Your task to perform on an android device: Open location settings Image 0: 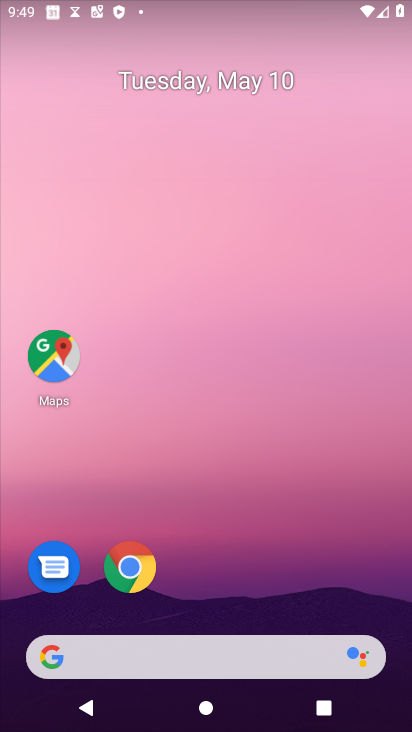
Step 0: press home button
Your task to perform on an android device: Open location settings Image 1: 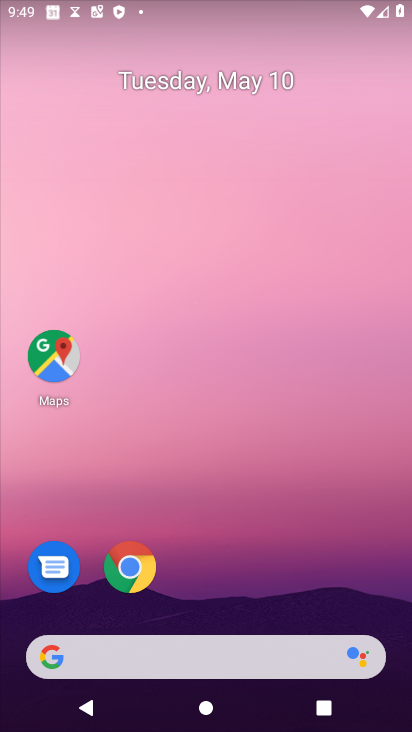
Step 1: drag from (25, 594) to (212, 147)
Your task to perform on an android device: Open location settings Image 2: 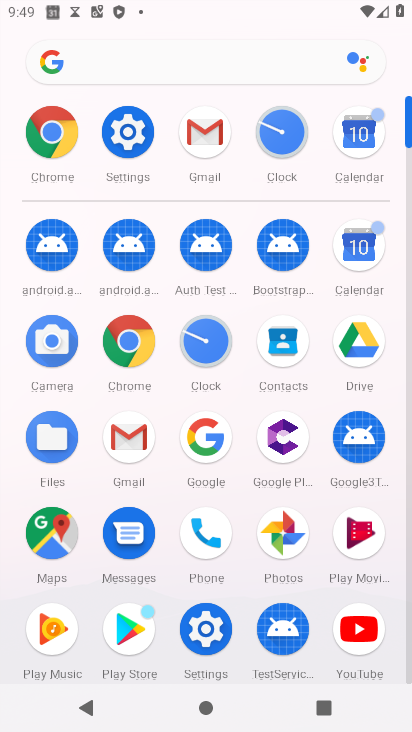
Step 2: click (133, 135)
Your task to perform on an android device: Open location settings Image 3: 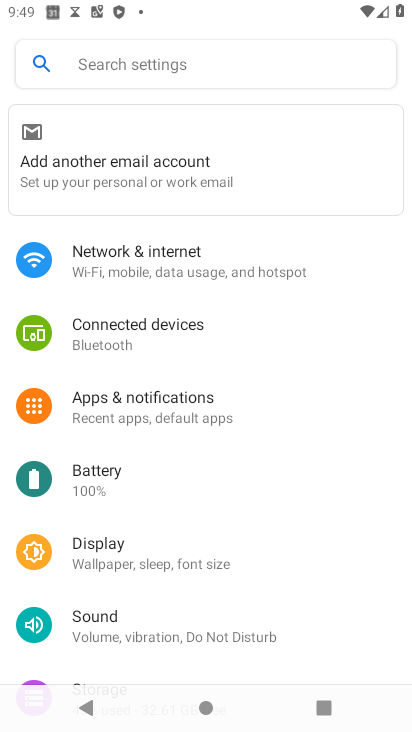
Step 3: drag from (15, 624) to (196, 242)
Your task to perform on an android device: Open location settings Image 4: 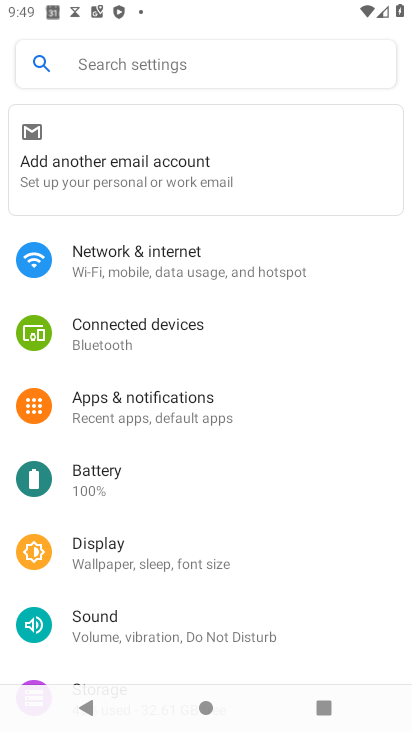
Step 4: drag from (26, 586) to (182, 219)
Your task to perform on an android device: Open location settings Image 5: 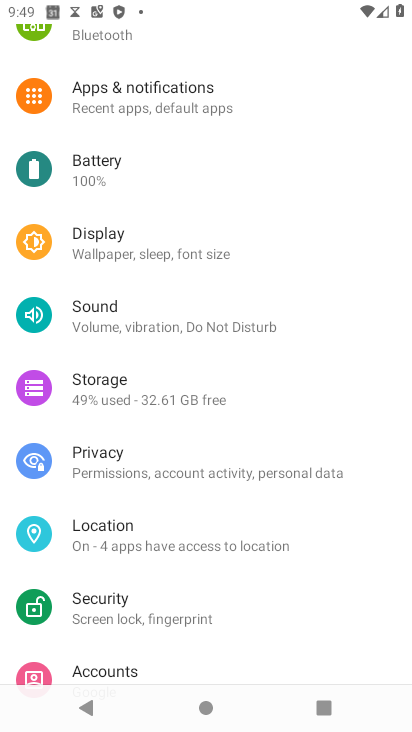
Step 5: click (80, 546)
Your task to perform on an android device: Open location settings Image 6: 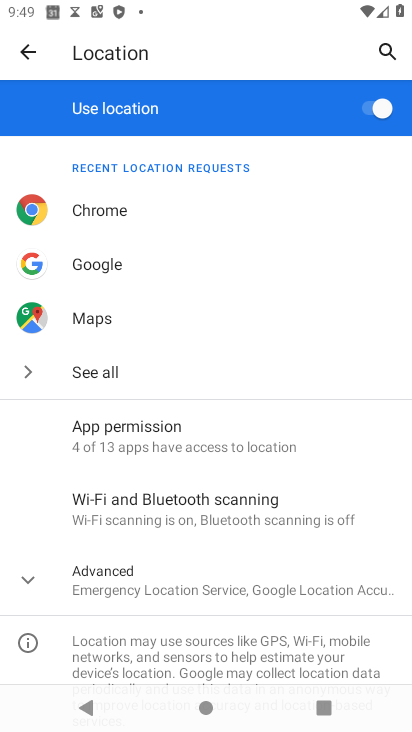
Step 6: task complete